Your task to perform on an android device: What's on my calendar tomorrow? Image 0: 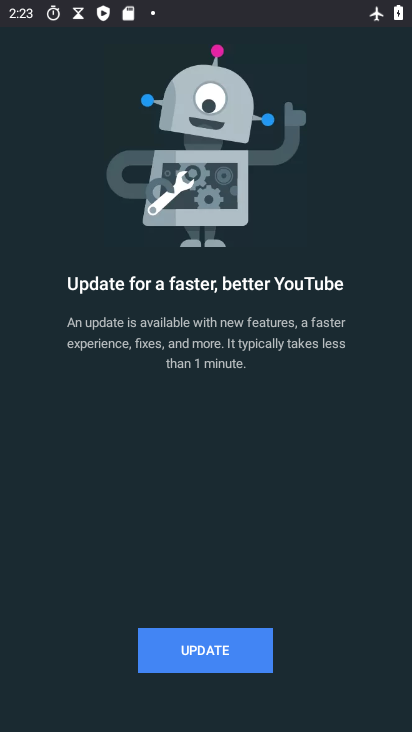
Step 0: press home button
Your task to perform on an android device: What's on my calendar tomorrow? Image 1: 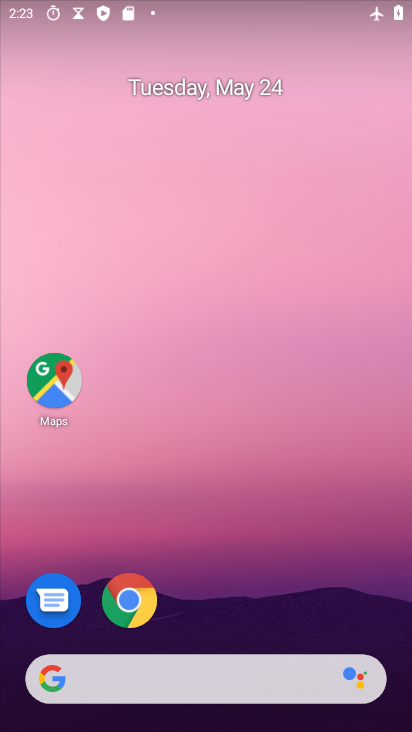
Step 1: drag from (249, 442) to (149, 0)
Your task to perform on an android device: What's on my calendar tomorrow? Image 2: 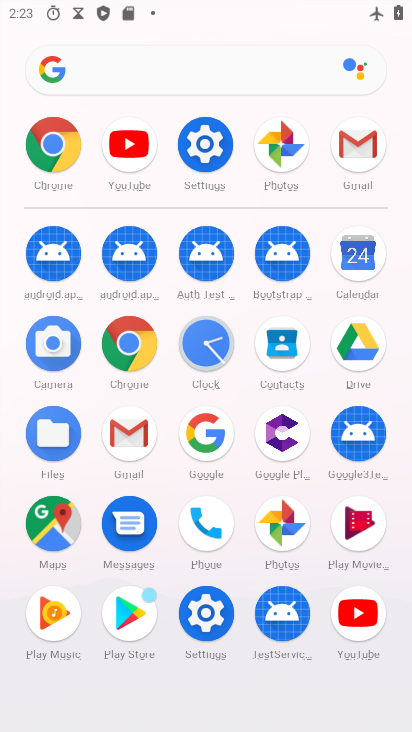
Step 2: click (355, 267)
Your task to perform on an android device: What's on my calendar tomorrow? Image 3: 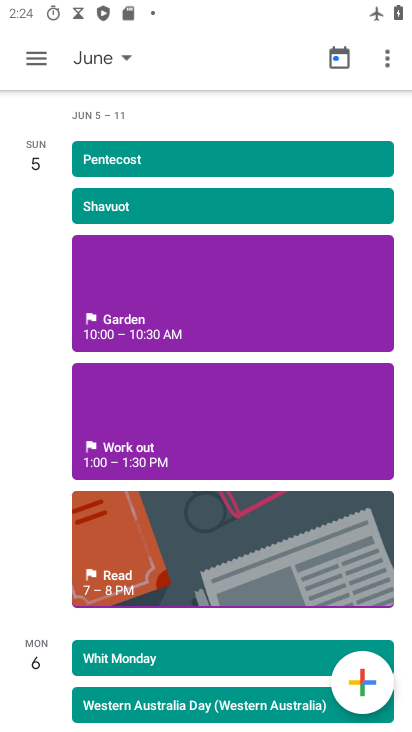
Step 3: drag from (42, 429) to (35, 185)
Your task to perform on an android device: What's on my calendar tomorrow? Image 4: 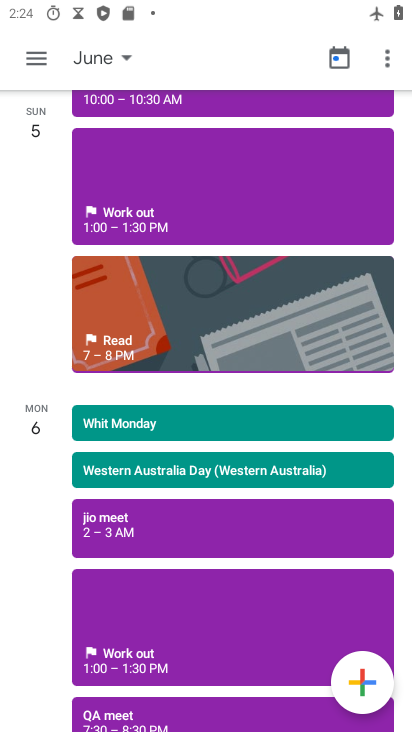
Step 4: drag from (55, 171) to (67, 356)
Your task to perform on an android device: What's on my calendar tomorrow? Image 5: 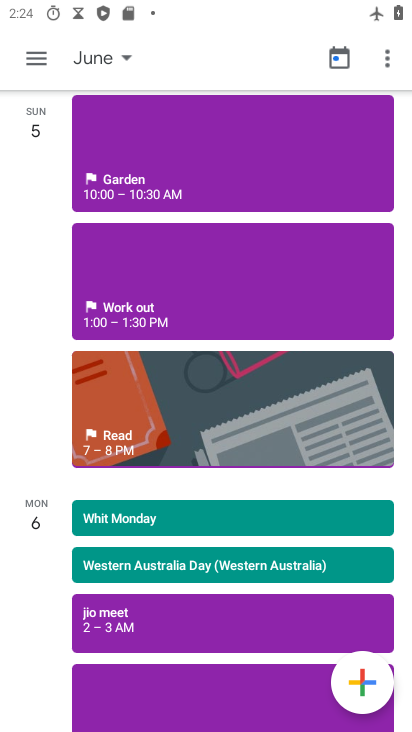
Step 5: click (123, 57)
Your task to perform on an android device: What's on my calendar tomorrow? Image 6: 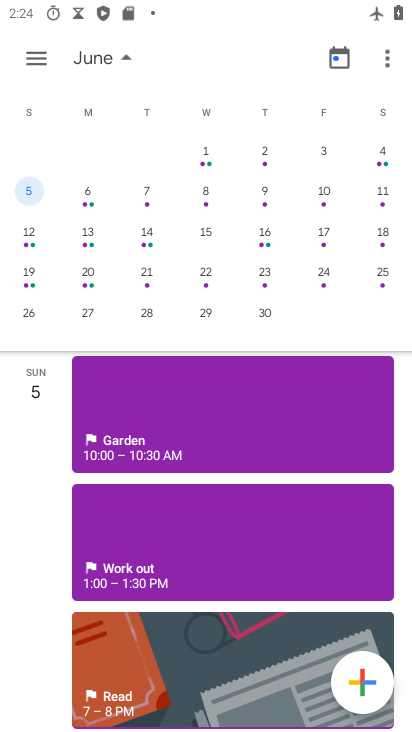
Step 6: drag from (116, 262) to (406, 251)
Your task to perform on an android device: What's on my calendar tomorrow? Image 7: 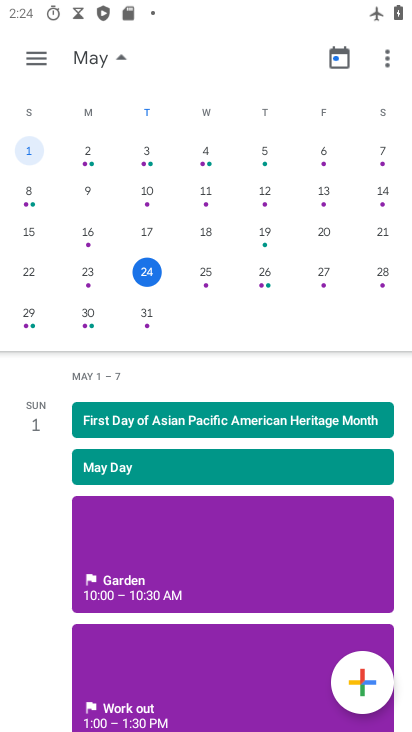
Step 7: click (148, 272)
Your task to perform on an android device: What's on my calendar tomorrow? Image 8: 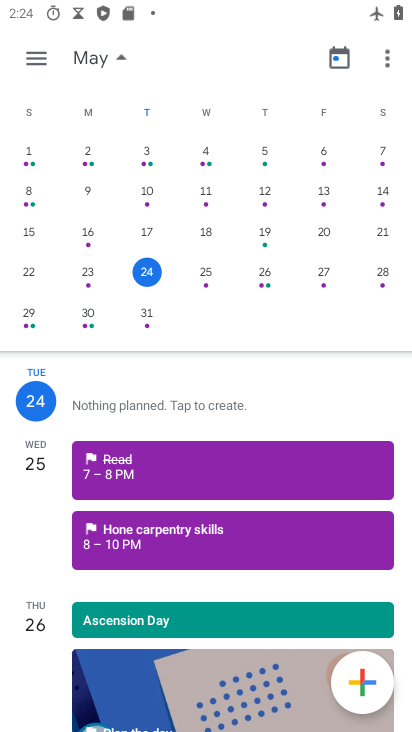
Step 8: click (209, 269)
Your task to perform on an android device: What's on my calendar tomorrow? Image 9: 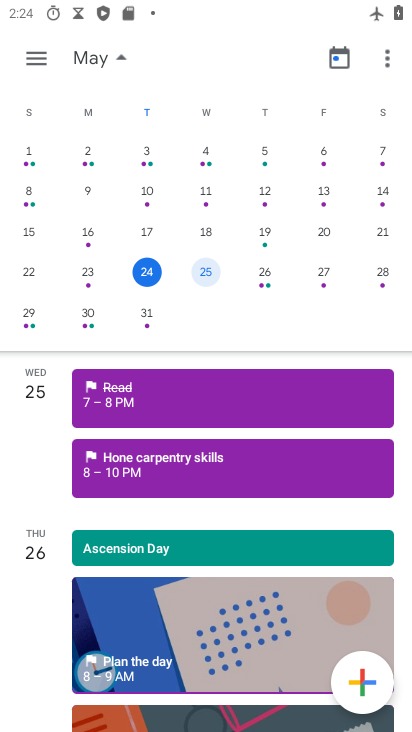
Step 9: task complete